Your task to perform on an android device: Go to privacy settings Image 0: 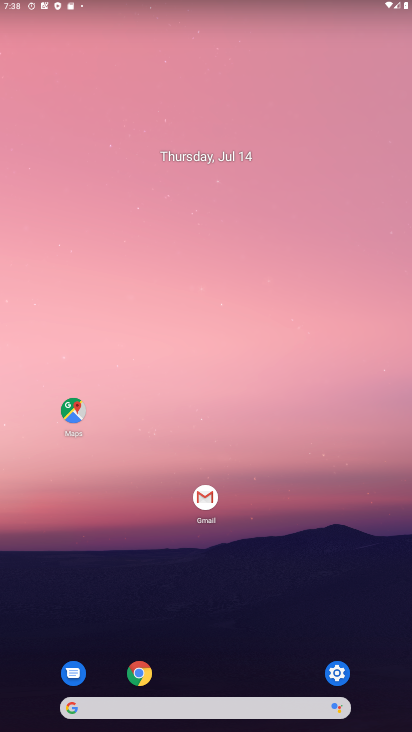
Step 0: click (342, 672)
Your task to perform on an android device: Go to privacy settings Image 1: 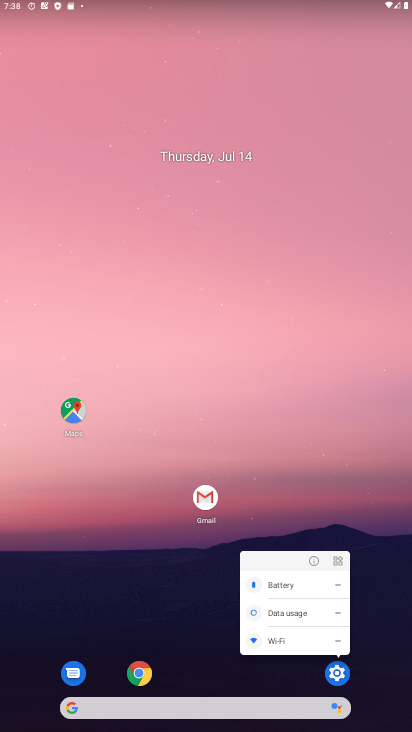
Step 1: click (332, 681)
Your task to perform on an android device: Go to privacy settings Image 2: 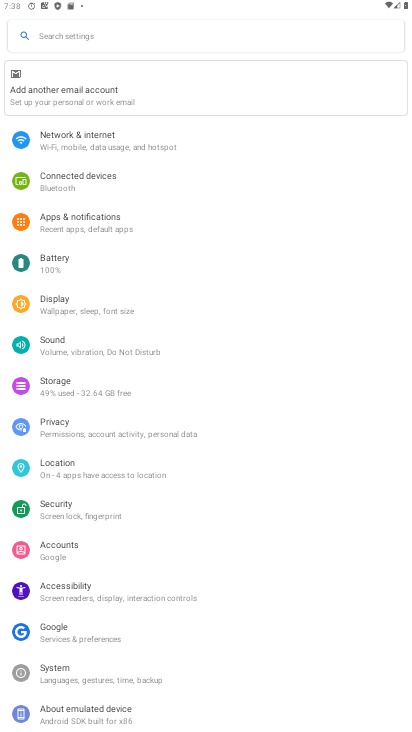
Step 2: click (96, 425)
Your task to perform on an android device: Go to privacy settings Image 3: 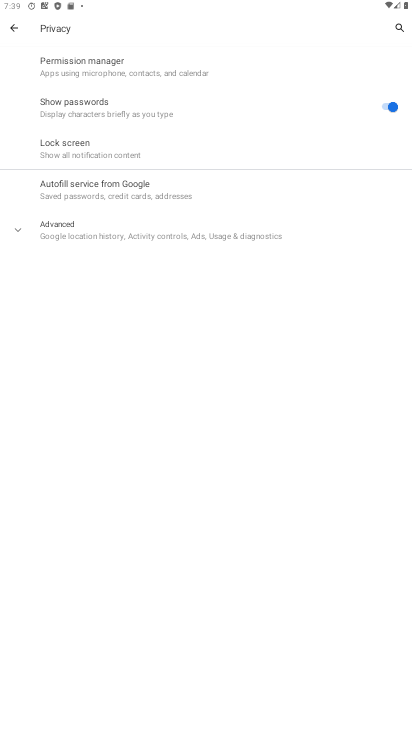
Step 3: task complete